Your task to perform on an android device: star an email in the gmail app Image 0: 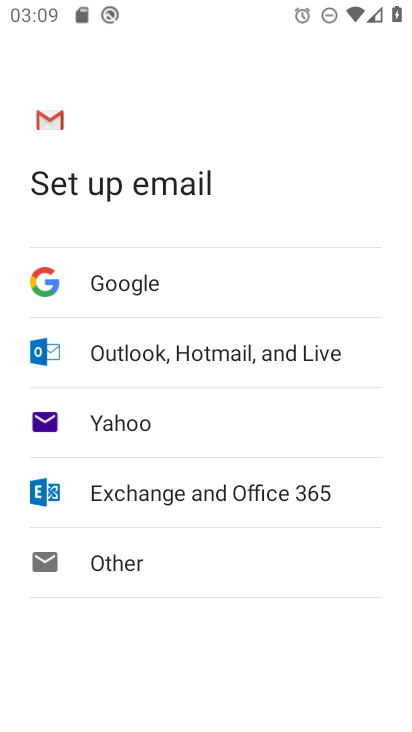
Step 0: press home button
Your task to perform on an android device: star an email in the gmail app Image 1: 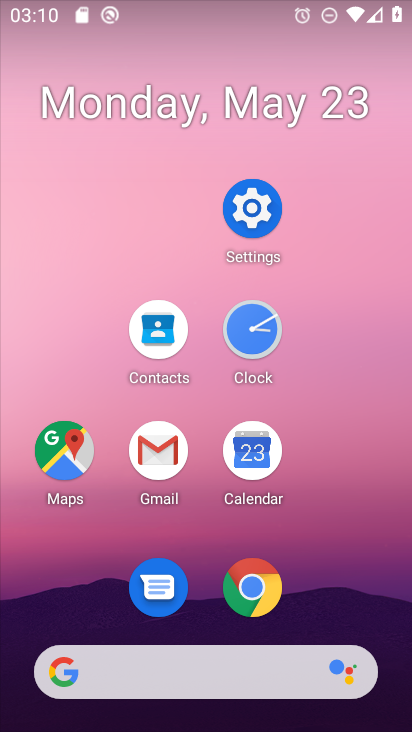
Step 1: click (159, 457)
Your task to perform on an android device: star an email in the gmail app Image 2: 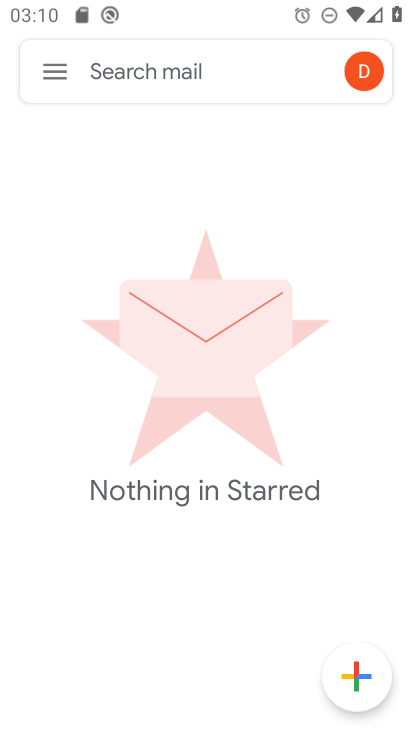
Step 2: task complete